Your task to perform on an android device: install app "Gboard" Image 0: 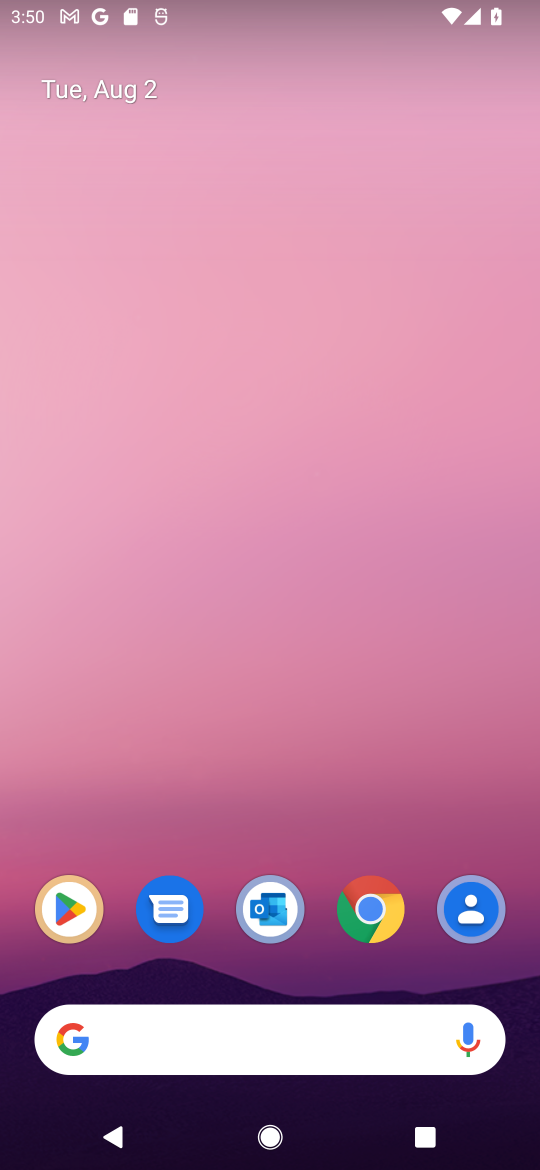
Step 0: drag from (227, 978) to (378, 61)
Your task to perform on an android device: install app "Gboard" Image 1: 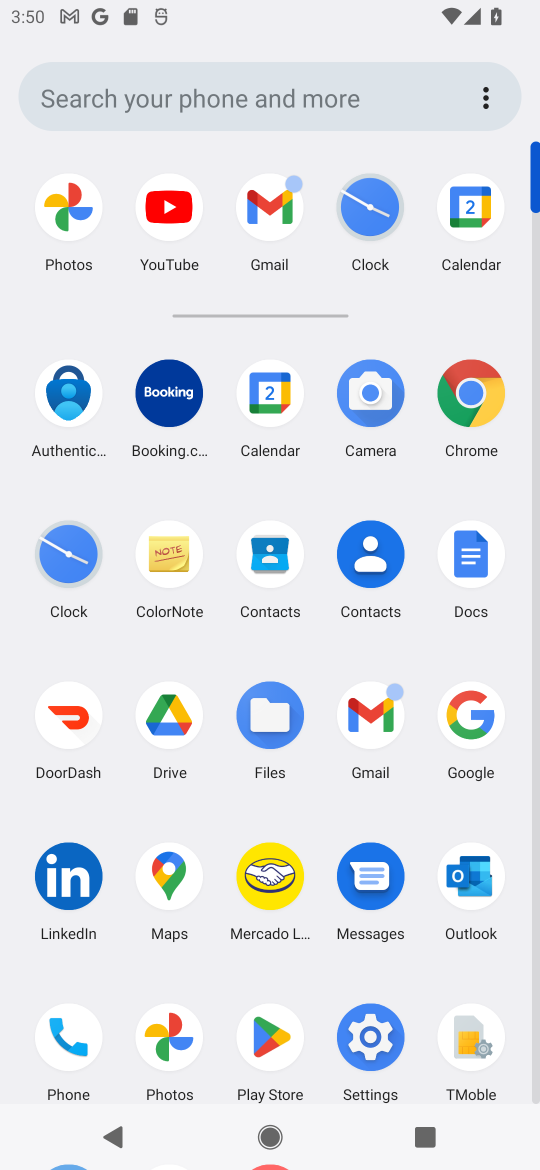
Step 1: click (278, 1037)
Your task to perform on an android device: install app "Gboard" Image 2: 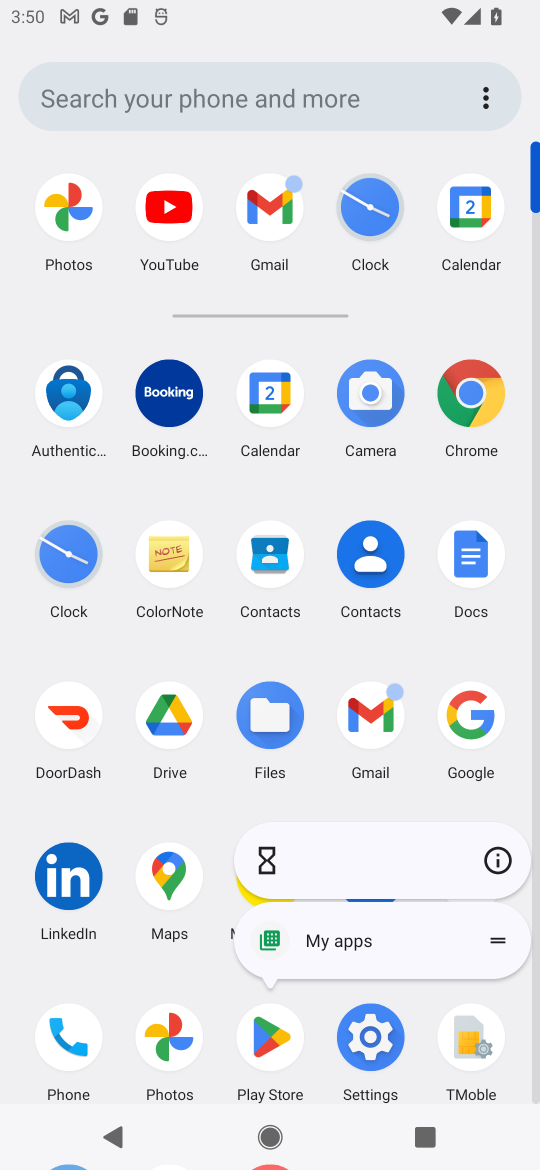
Step 2: click (512, 862)
Your task to perform on an android device: install app "Gboard" Image 3: 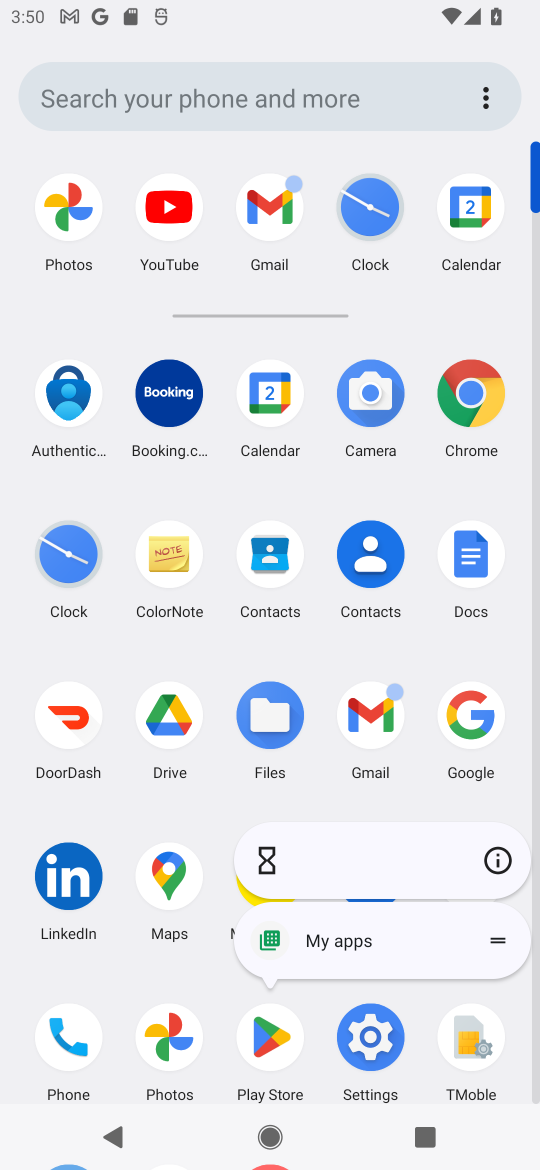
Step 3: click (487, 849)
Your task to perform on an android device: install app "Gboard" Image 4: 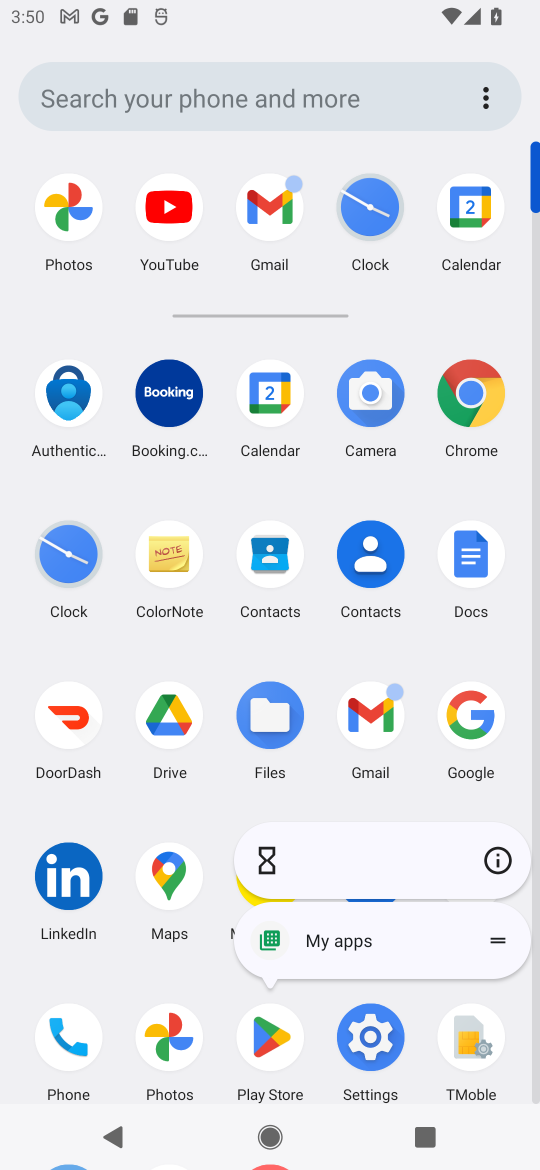
Step 4: click (486, 861)
Your task to perform on an android device: install app "Gboard" Image 5: 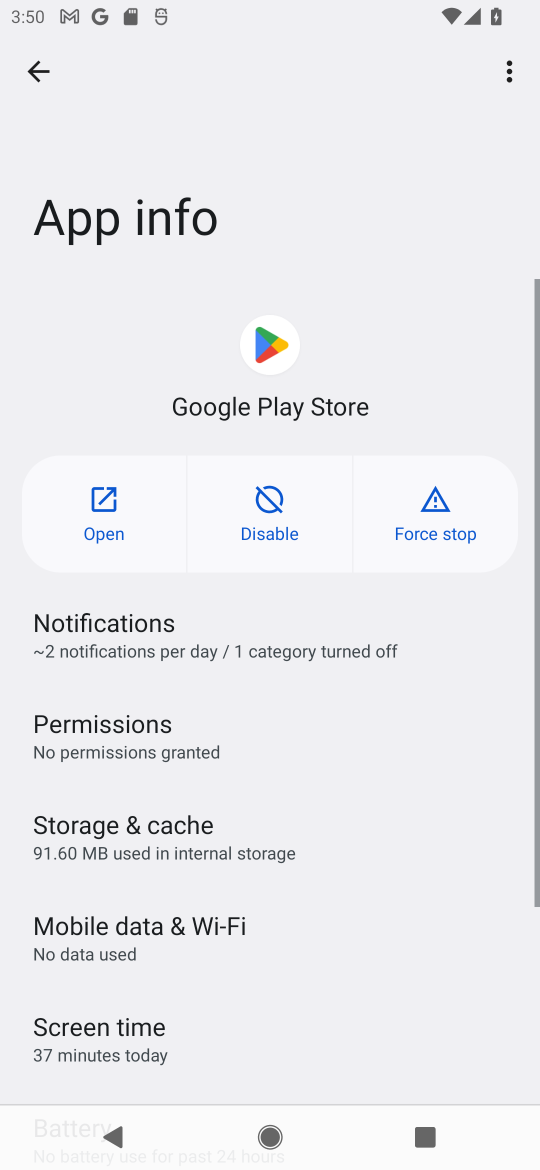
Step 5: click (498, 876)
Your task to perform on an android device: install app "Gboard" Image 6: 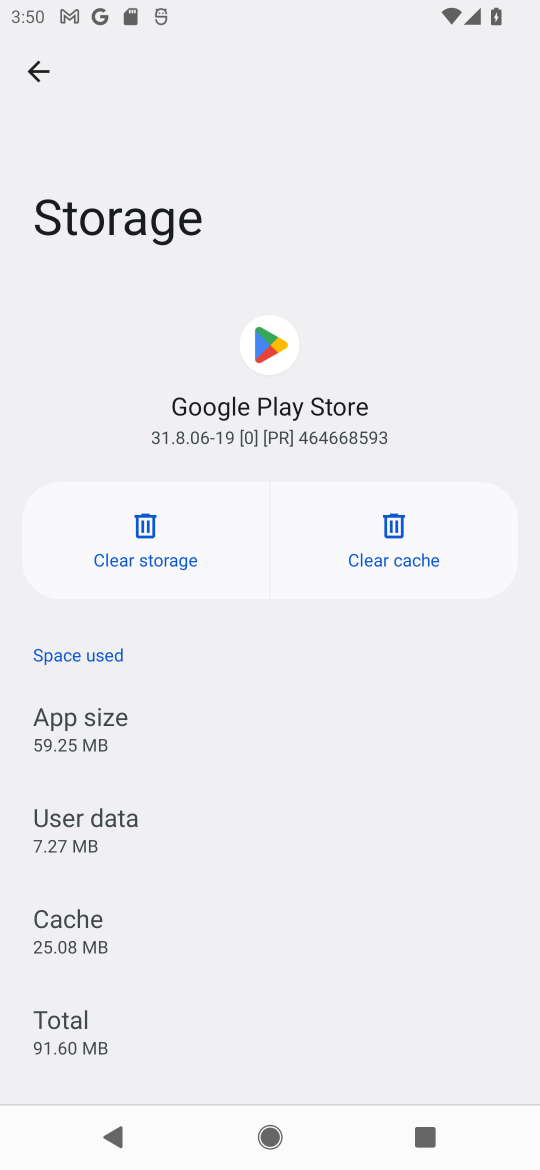
Step 6: press back button
Your task to perform on an android device: install app "Gboard" Image 7: 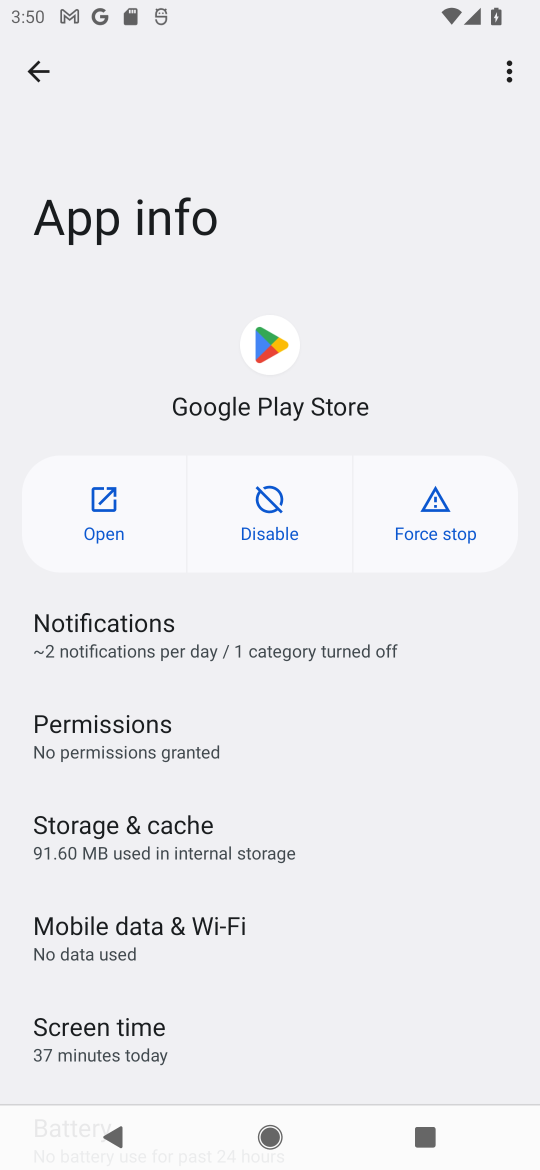
Step 7: click (113, 530)
Your task to perform on an android device: install app "Gboard" Image 8: 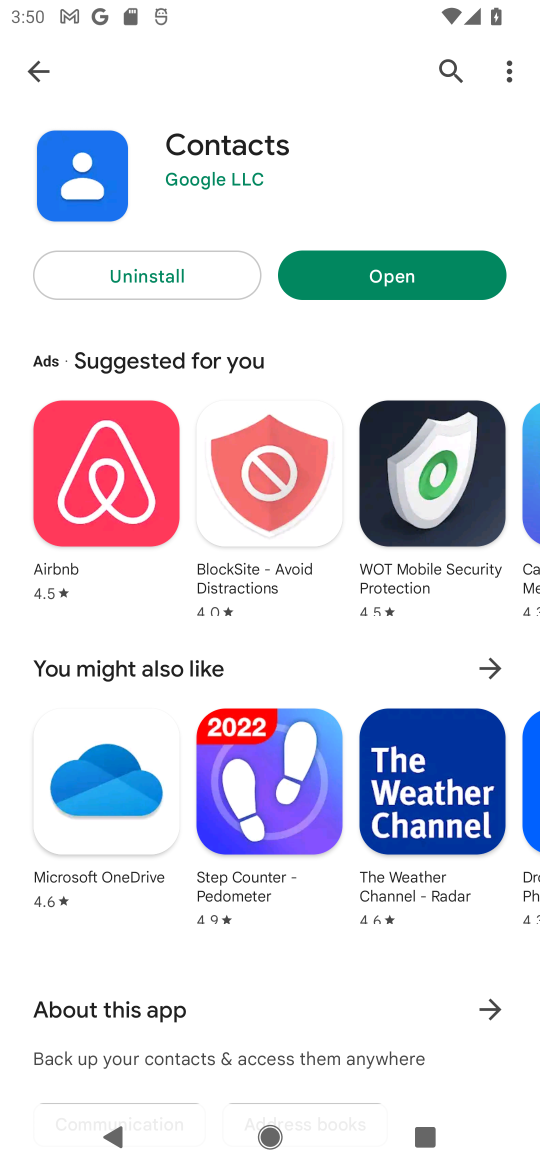
Step 8: click (457, 710)
Your task to perform on an android device: install app "Gboard" Image 9: 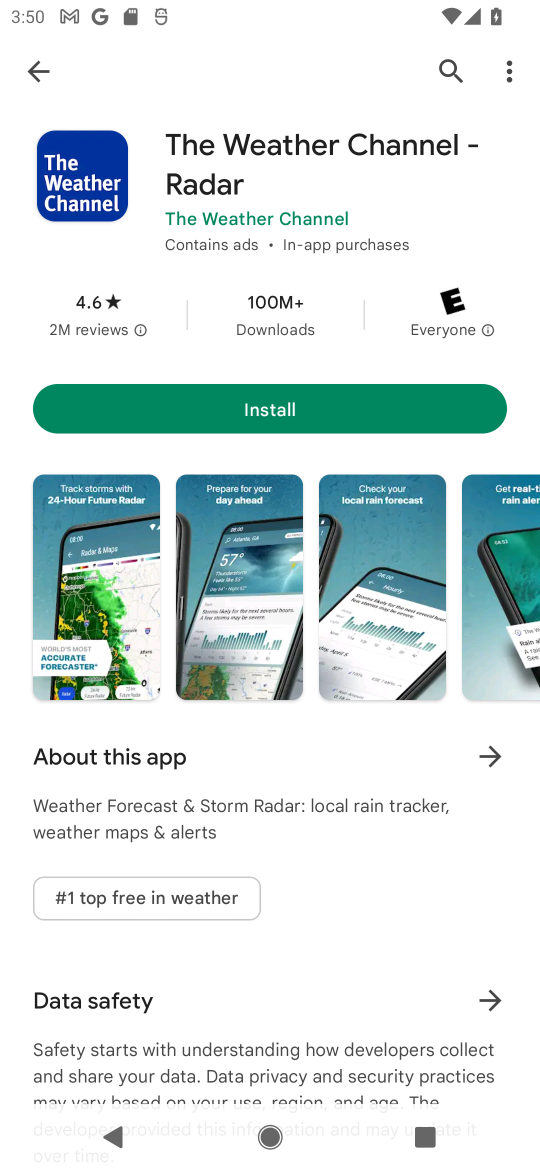
Step 9: click (462, 80)
Your task to perform on an android device: install app "Gboard" Image 10: 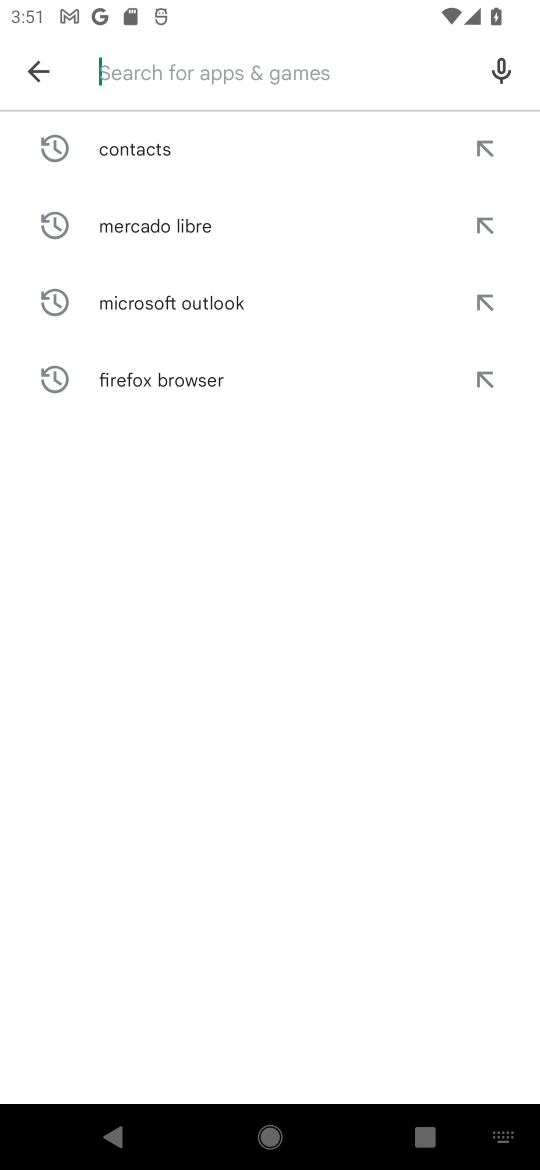
Step 10: type "Gboard"
Your task to perform on an android device: install app "Gboard" Image 11: 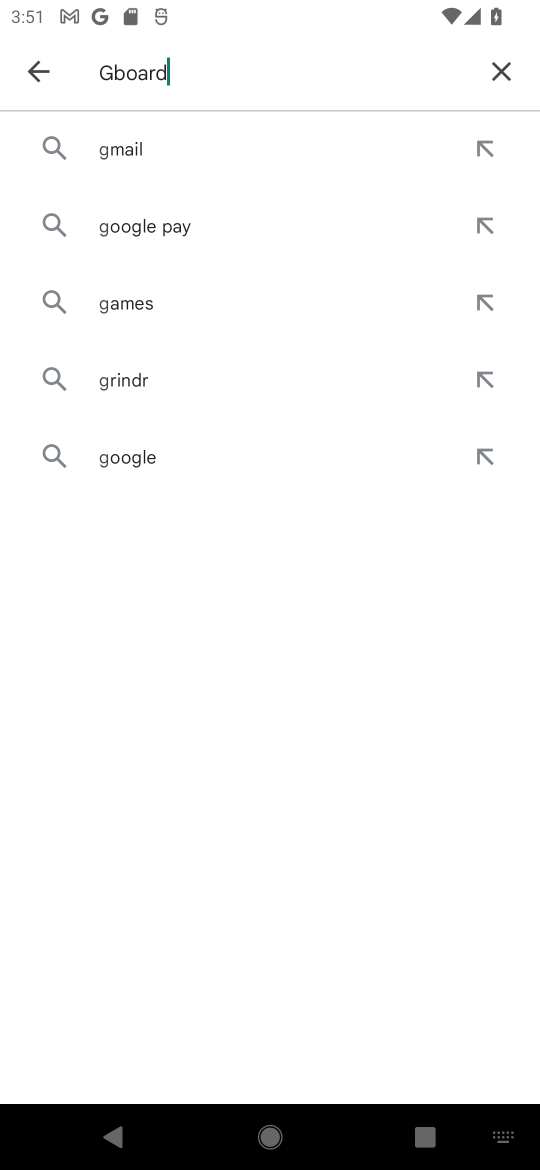
Step 11: type ""
Your task to perform on an android device: install app "Gboard" Image 12: 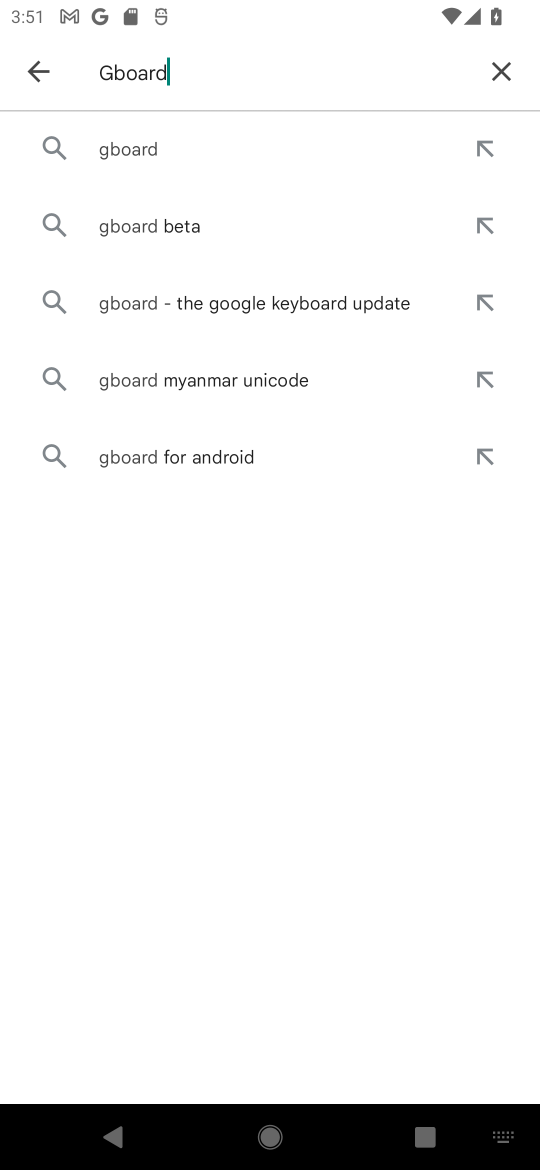
Step 12: click (181, 146)
Your task to perform on an android device: install app "Gboard" Image 13: 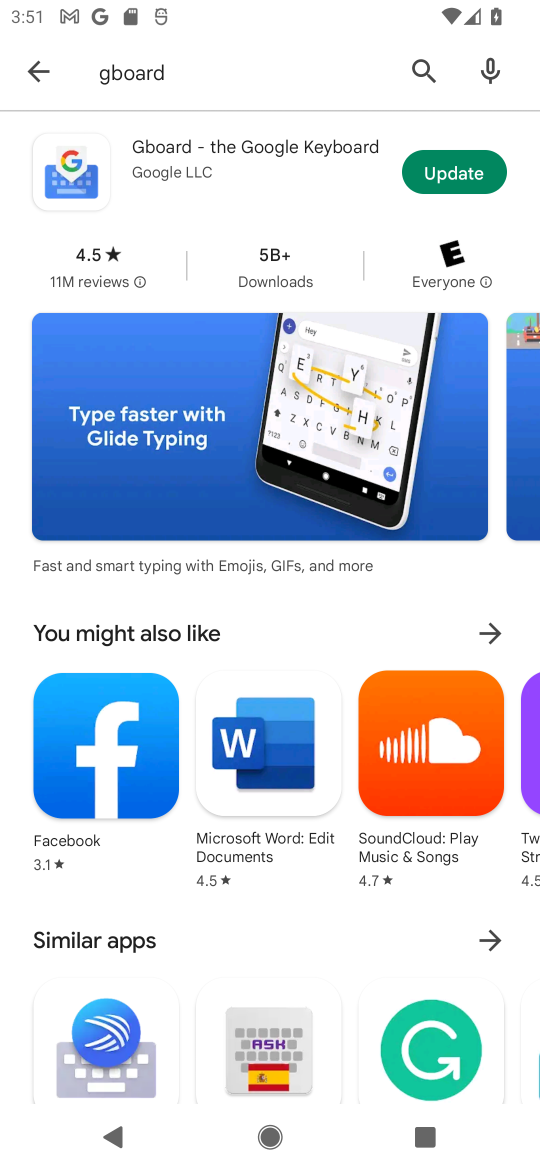
Step 13: drag from (288, 930) to (371, 529)
Your task to perform on an android device: install app "Gboard" Image 14: 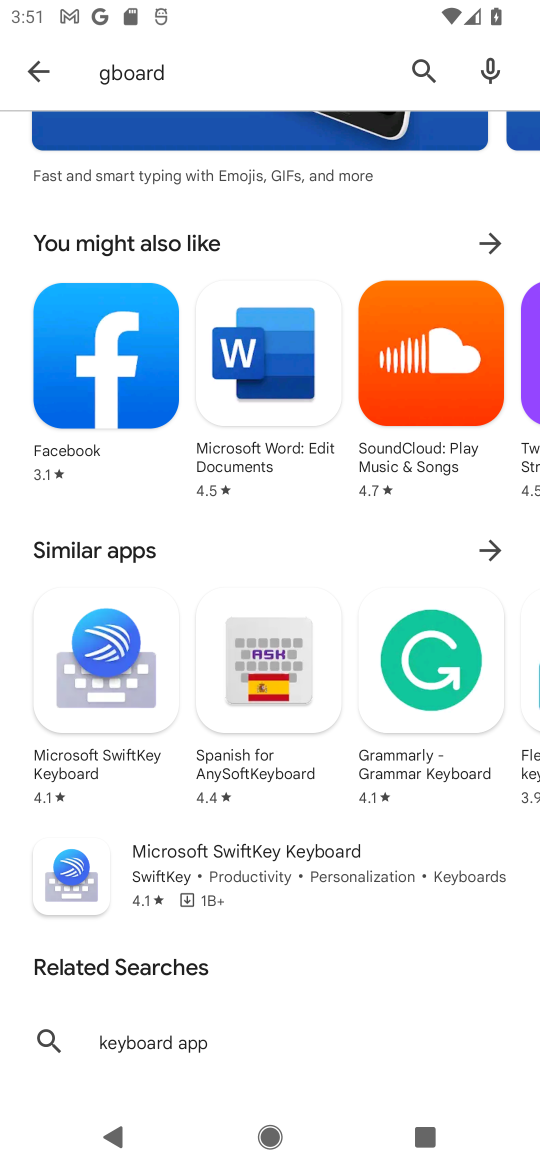
Step 14: drag from (310, 252) to (234, 1128)
Your task to perform on an android device: install app "Gboard" Image 15: 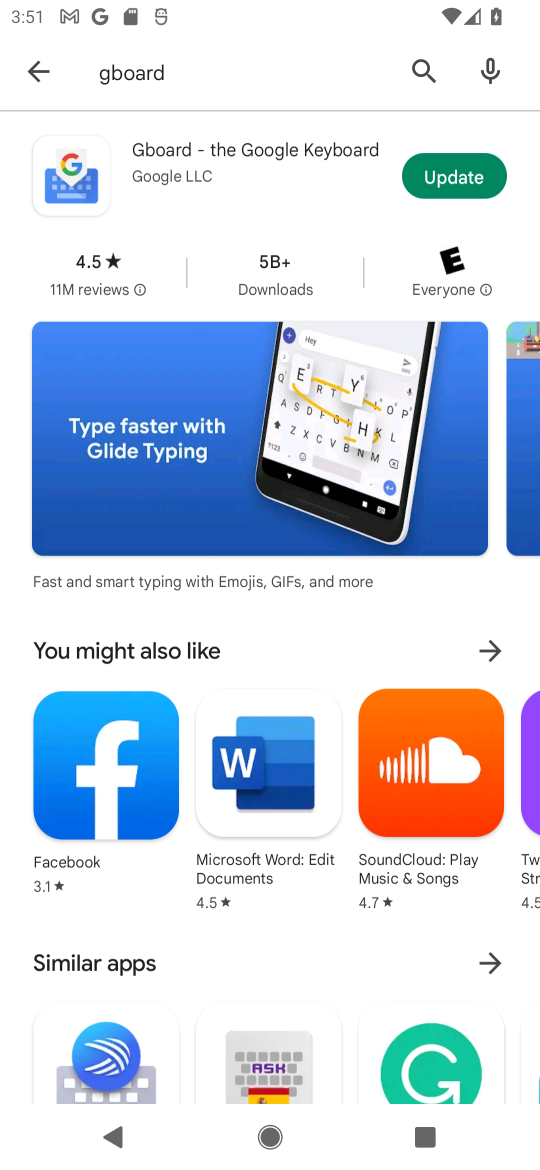
Step 15: drag from (292, 950) to (365, 594)
Your task to perform on an android device: install app "Gboard" Image 16: 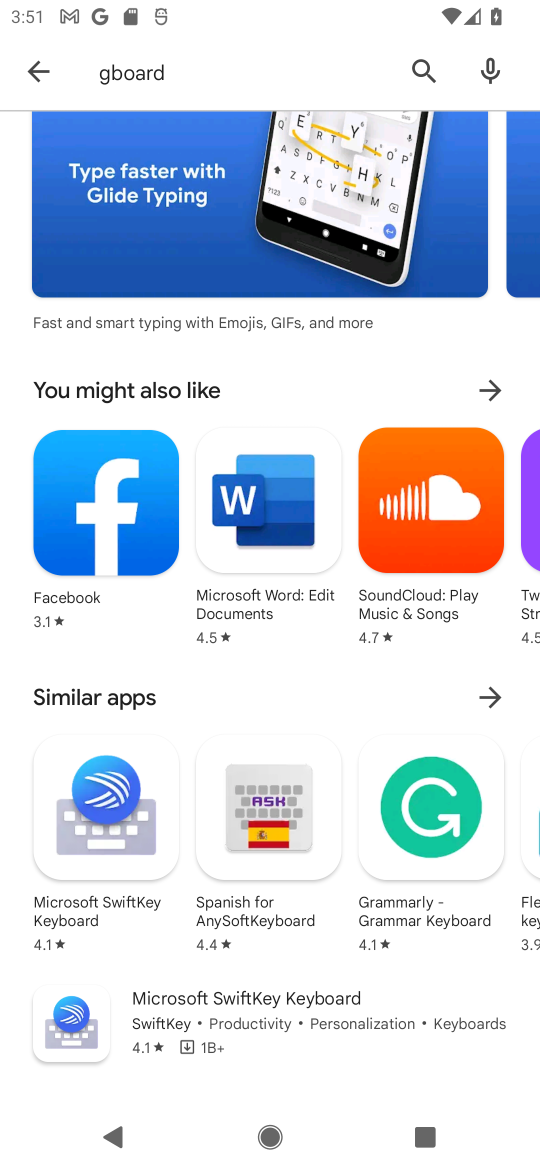
Step 16: drag from (362, 567) to (533, 849)
Your task to perform on an android device: install app "Gboard" Image 17: 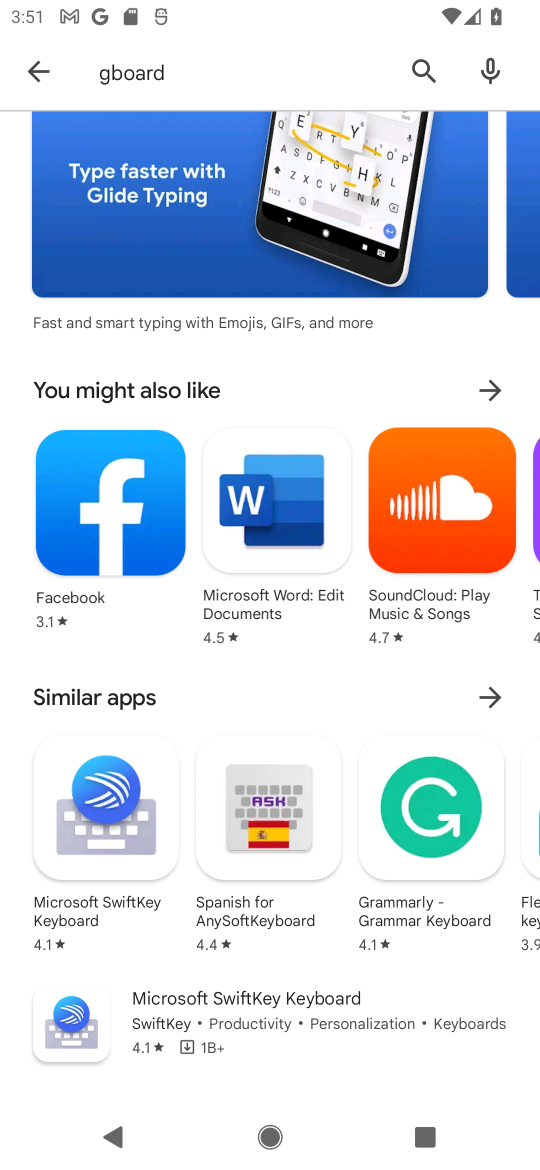
Step 17: drag from (314, 715) to (283, 424)
Your task to perform on an android device: install app "Gboard" Image 18: 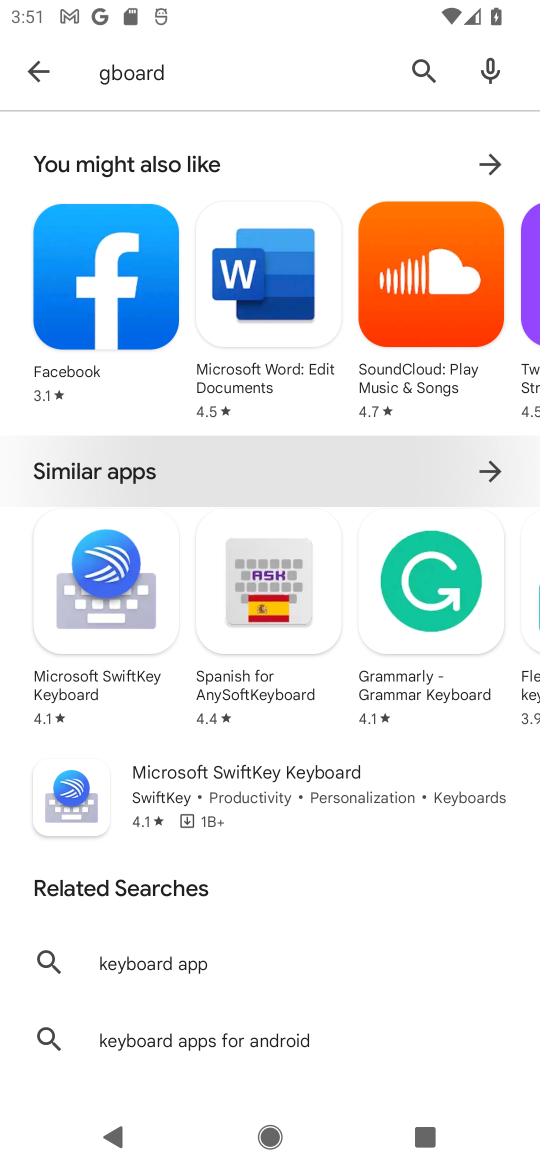
Step 18: drag from (280, 384) to (325, 1158)
Your task to perform on an android device: install app "Gboard" Image 19: 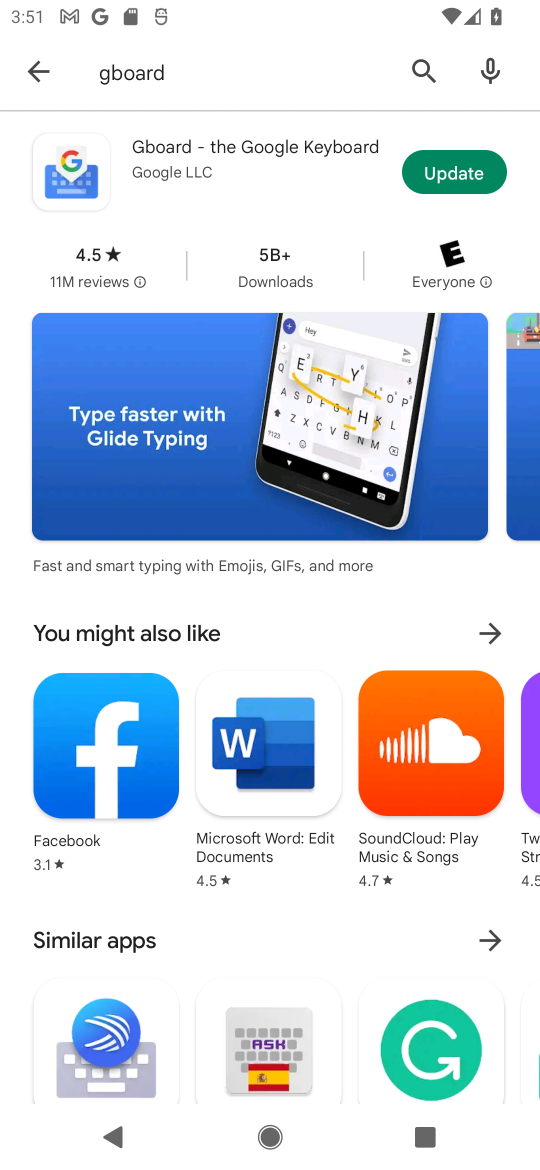
Step 19: click (160, 159)
Your task to perform on an android device: install app "Gboard" Image 20: 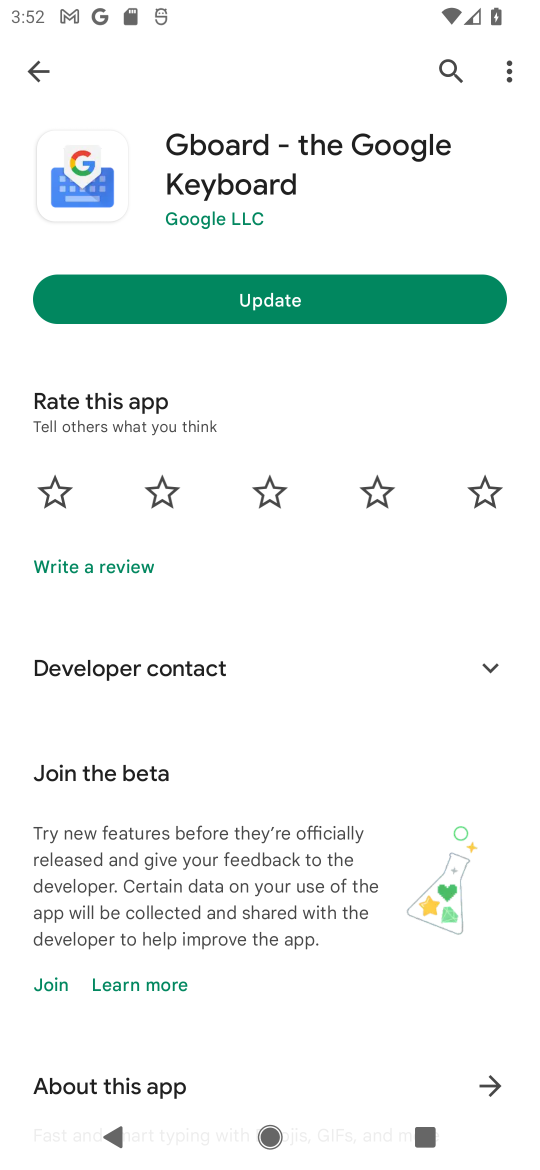
Step 20: task complete